Your task to perform on an android device: turn on translation in the chrome app Image 0: 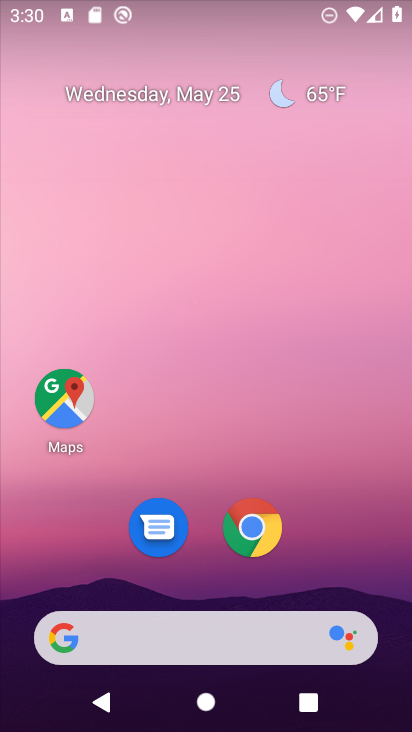
Step 0: drag from (296, 618) to (327, 1)
Your task to perform on an android device: turn on translation in the chrome app Image 1: 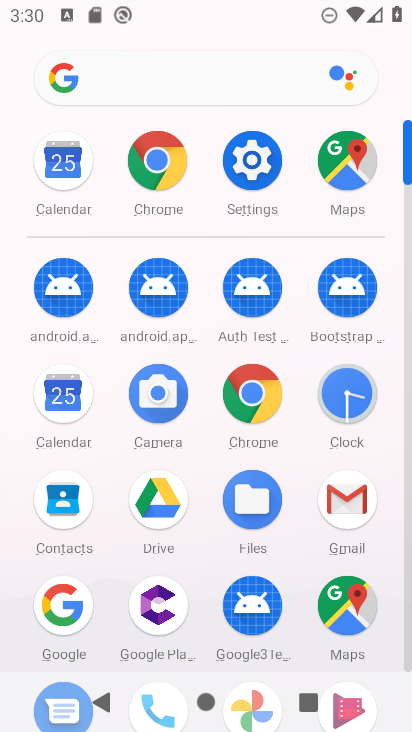
Step 1: click (263, 386)
Your task to perform on an android device: turn on translation in the chrome app Image 2: 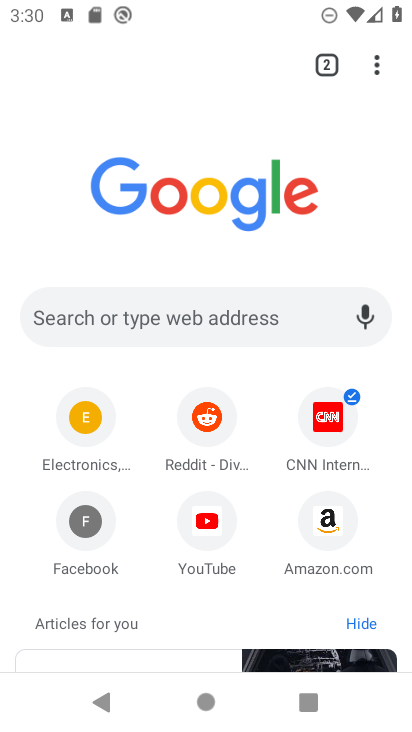
Step 2: drag from (373, 64) to (177, 541)
Your task to perform on an android device: turn on translation in the chrome app Image 3: 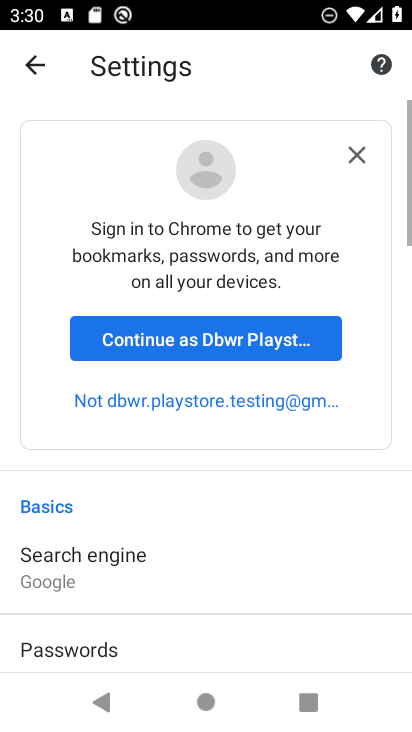
Step 3: drag from (221, 632) to (256, 48)
Your task to perform on an android device: turn on translation in the chrome app Image 4: 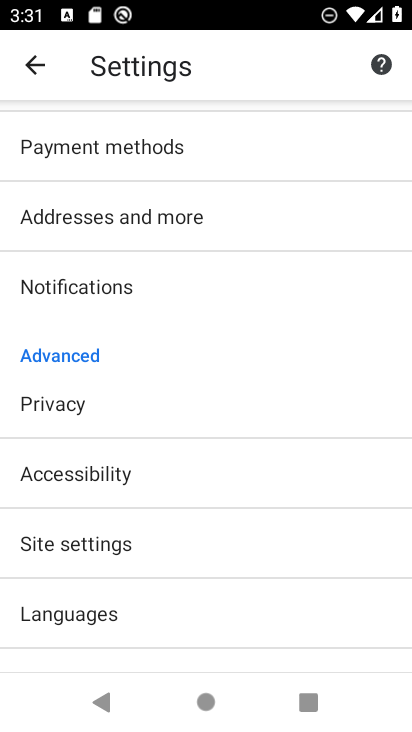
Step 4: click (106, 626)
Your task to perform on an android device: turn on translation in the chrome app Image 5: 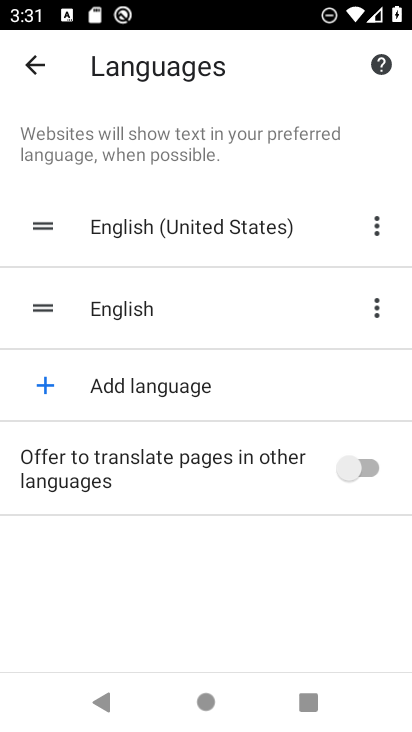
Step 5: click (369, 467)
Your task to perform on an android device: turn on translation in the chrome app Image 6: 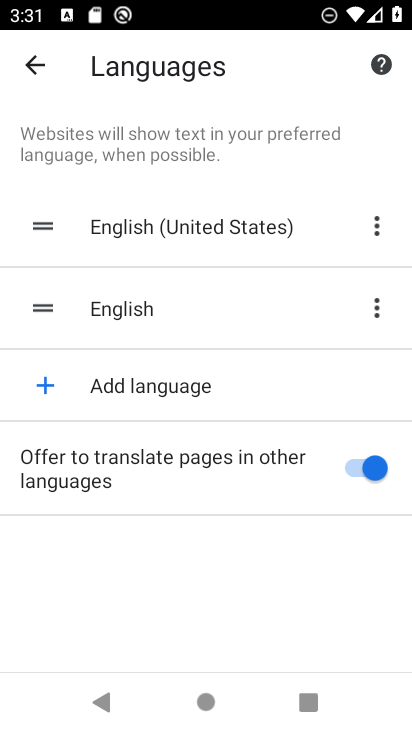
Step 6: task complete